Your task to perform on an android device: see tabs open on other devices in the chrome app Image 0: 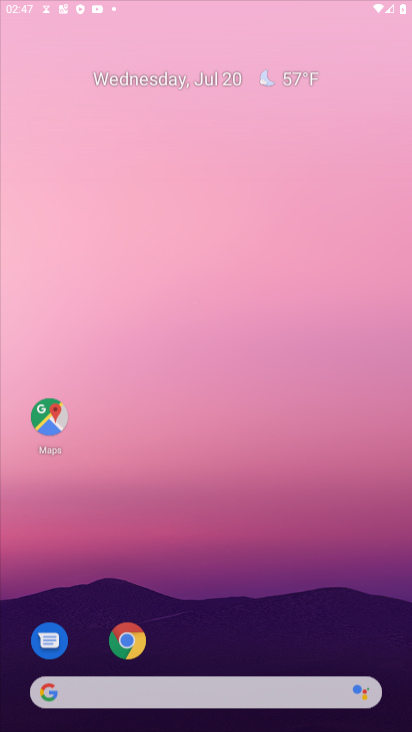
Step 0: press home button
Your task to perform on an android device: see tabs open on other devices in the chrome app Image 1: 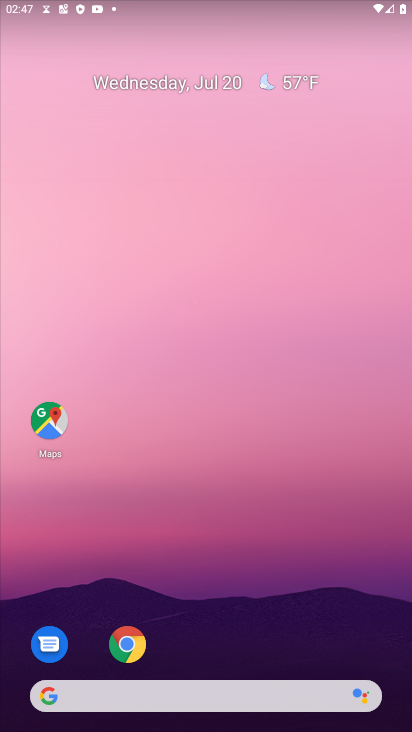
Step 1: drag from (230, 643) to (130, 7)
Your task to perform on an android device: see tabs open on other devices in the chrome app Image 2: 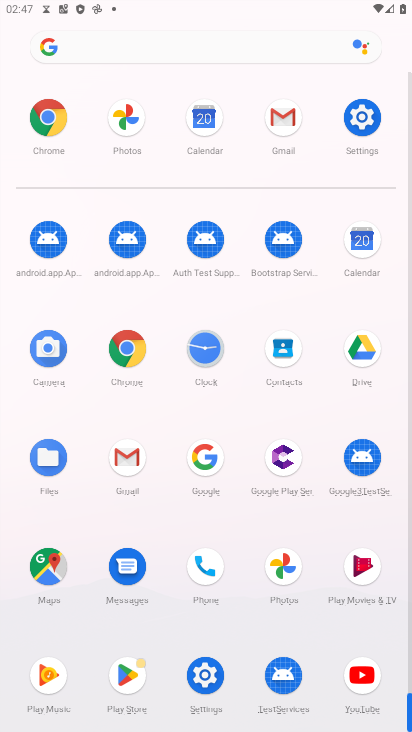
Step 2: click (40, 114)
Your task to perform on an android device: see tabs open on other devices in the chrome app Image 3: 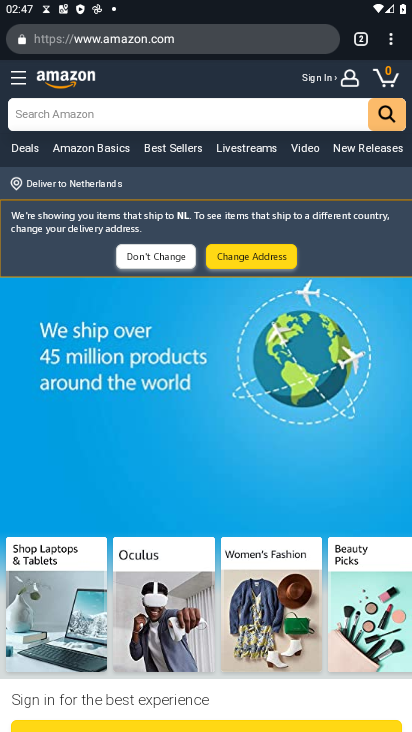
Step 3: task complete